Your task to perform on an android device: Turn off the flashlight Image 0: 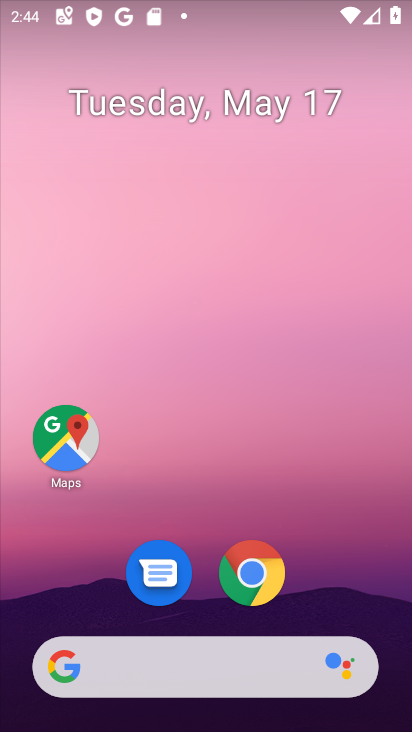
Step 0: drag from (352, 569) to (333, 124)
Your task to perform on an android device: Turn off the flashlight Image 1: 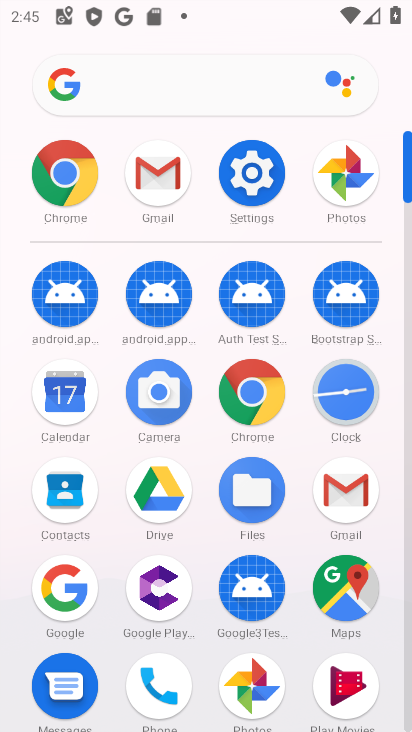
Step 1: click (247, 181)
Your task to perform on an android device: Turn off the flashlight Image 2: 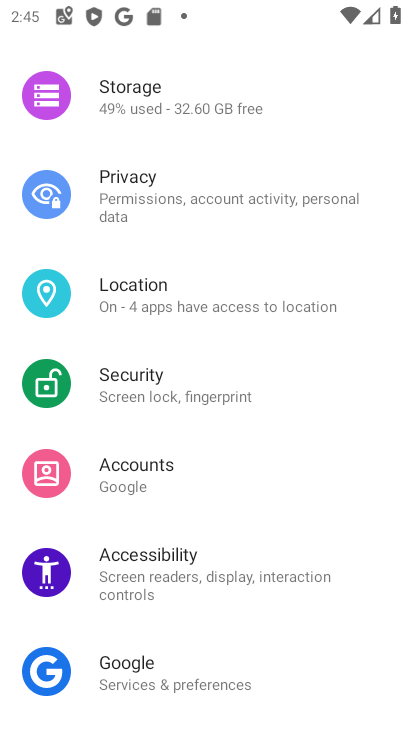
Step 2: drag from (294, 191) to (341, 558)
Your task to perform on an android device: Turn off the flashlight Image 3: 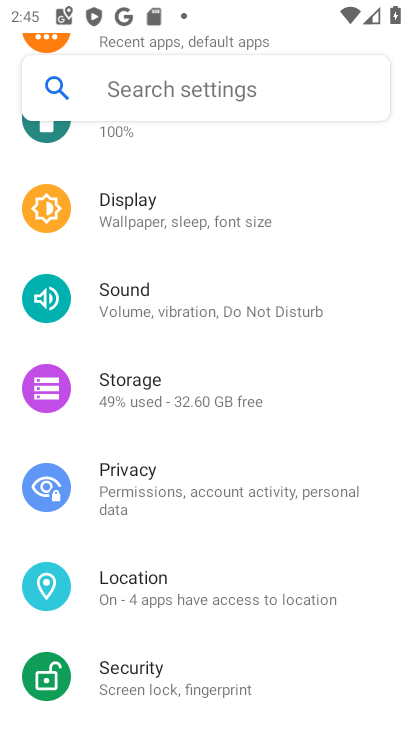
Step 3: click (276, 101)
Your task to perform on an android device: Turn off the flashlight Image 4: 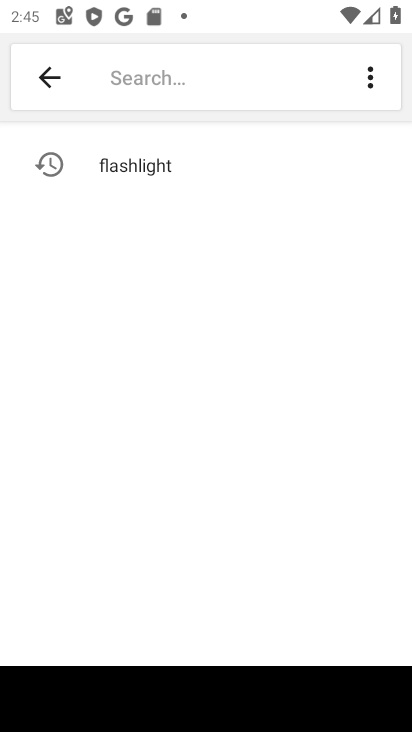
Step 4: click (140, 167)
Your task to perform on an android device: Turn off the flashlight Image 5: 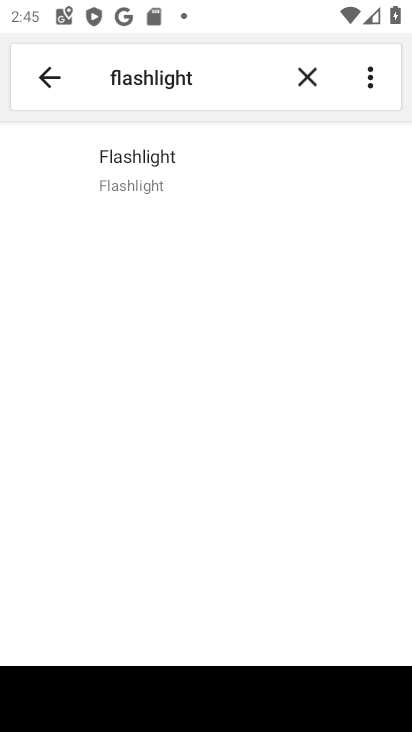
Step 5: task complete